Your task to perform on an android device: Open the web browser Image 0: 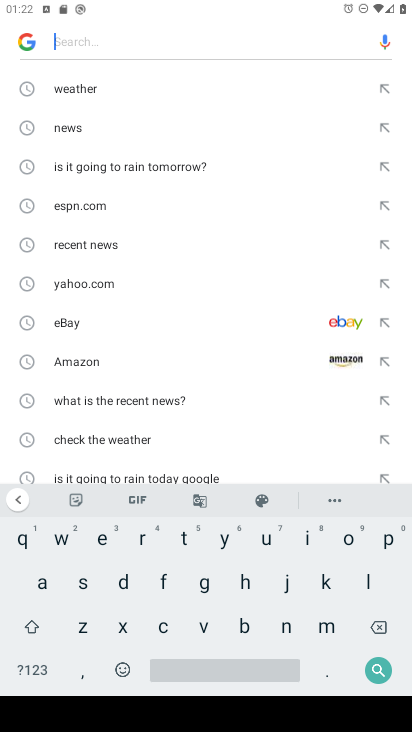
Step 0: press home button
Your task to perform on an android device: Open the web browser Image 1: 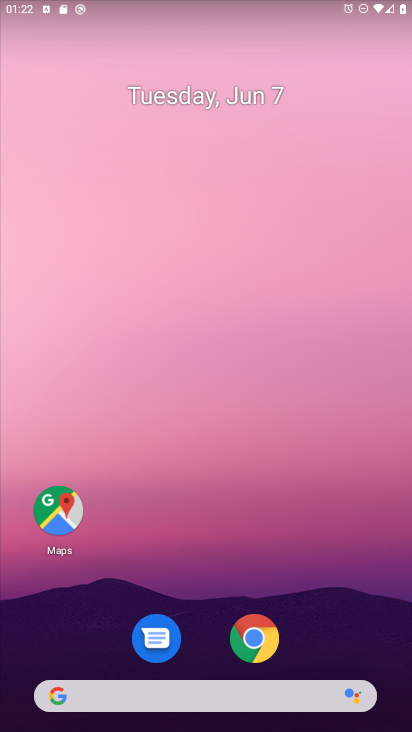
Step 1: drag from (223, 714) to (188, 312)
Your task to perform on an android device: Open the web browser Image 2: 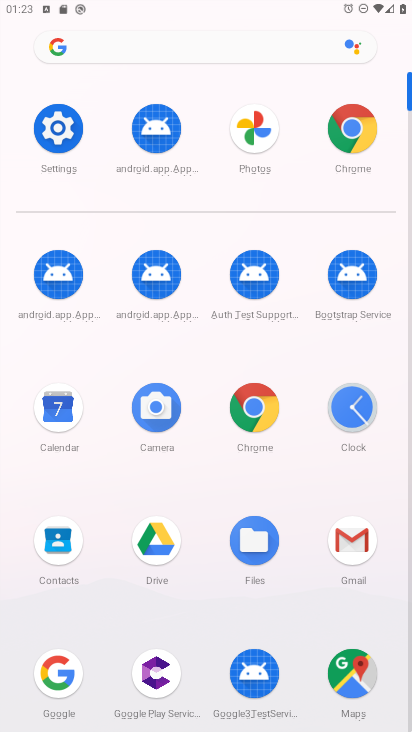
Step 2: click (350, 137)
Your task to perform on an android device: Open the web browser Image 3: 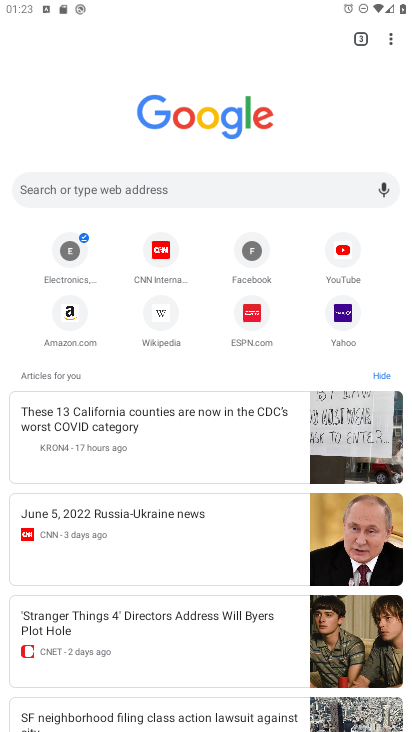
Step 3: click (344, 118)
Your task to perform on an android device: Open the web browser Image 4: 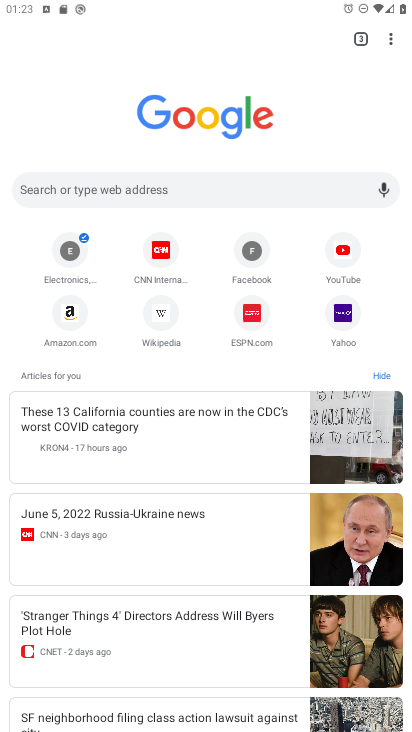
Step 4: click (169, 197)
Your task to perform on an android device: Open the web browser Image 5: 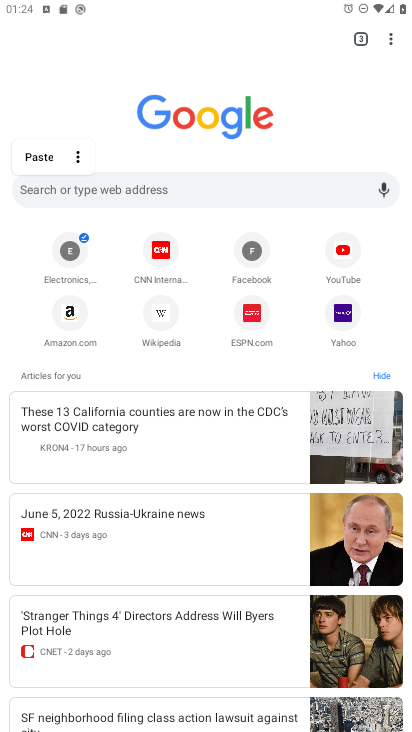
Step 5: task complete